Your task to perform on an android device: turn off sleep mode Image 0: 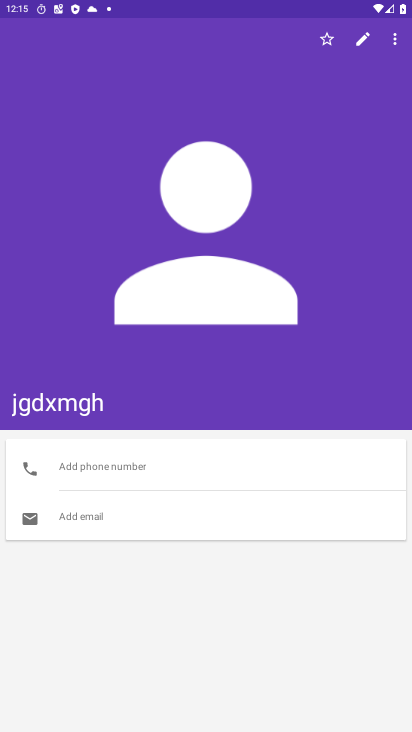
Step 0: press home button
Your task to perform on an android device: turn off sleep mode Image 1: 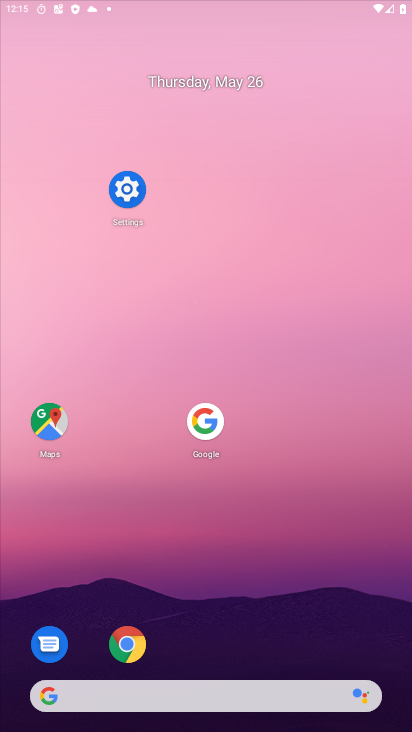
Step 1: drag from (212, 622) to (251, 59)
Your task to perform on an android device: turn off sleep mode Image 2: 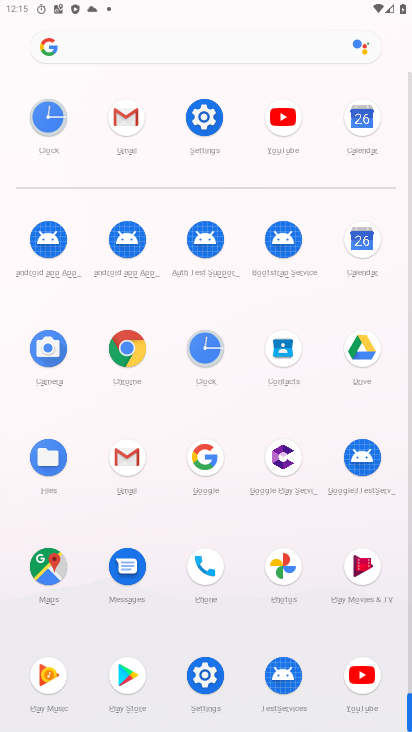
Step 2: click (193, 97)
Your task to perform on an android device: turn off sleep mode Image 3: 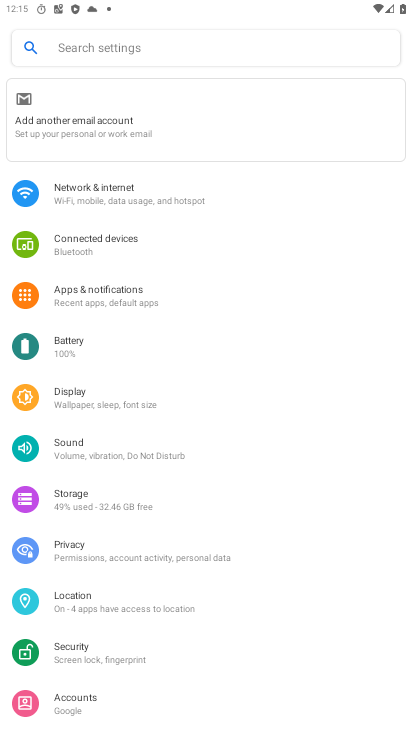
Step 3: click (129, 401)
Your task to perform on an android device: turn off sleep mode Image 4: 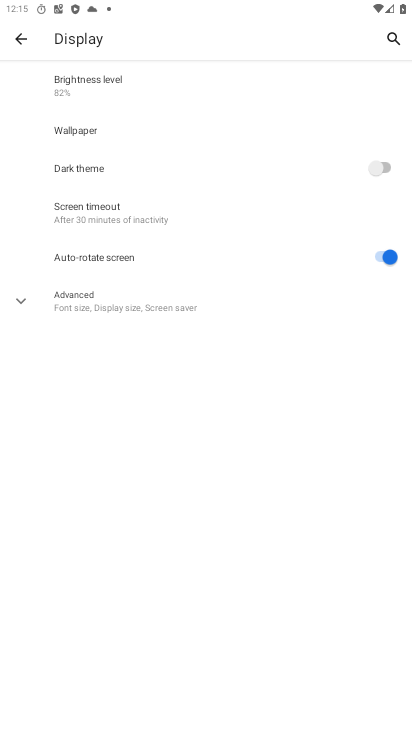
Step 4: click (129, 217)
Your task to perform on an android device: turn off sleep mode Image 5: 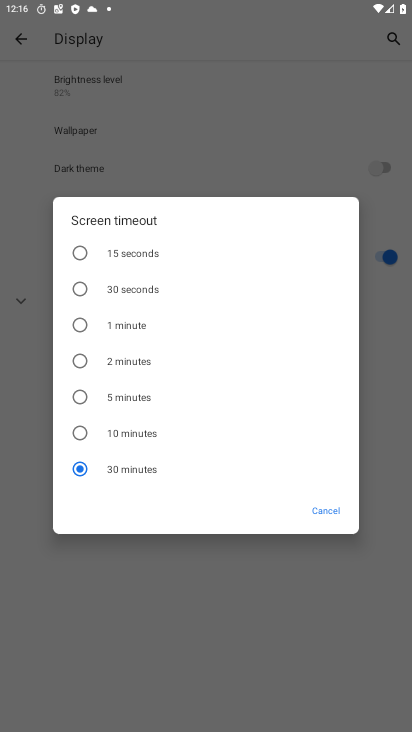
Step 5: task complete